Your task to perform on an android device: Open calendar and show me the first week of next month Image 0: 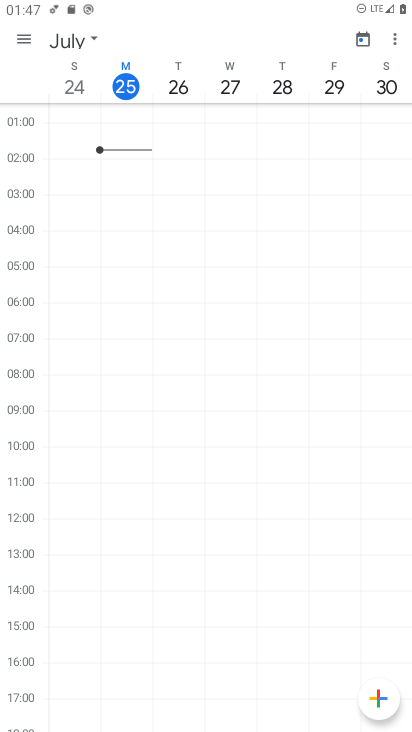
Step 0: press home button
Your task to perform on an android device: Open calendar and show me the first week of next month Image 1: 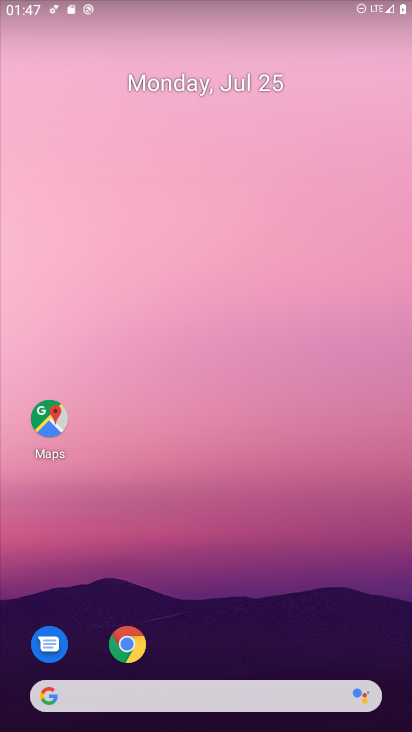
Step 1: drag from (207, 726) to (203, 211)
Your task to perform on an android device: Open calendar and show me the first week of next month Image 2: 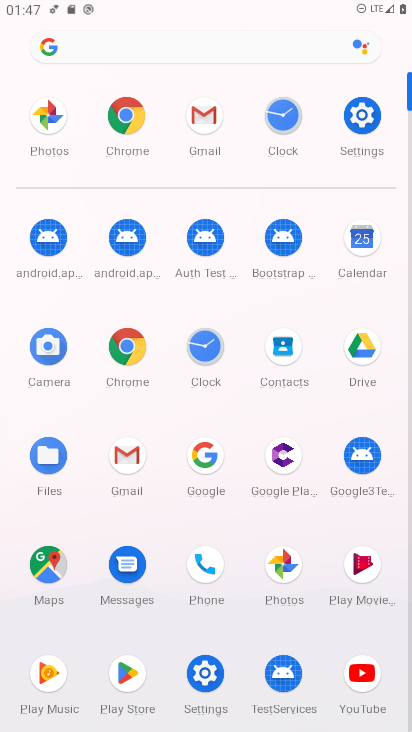
Step 2: click (364, 250)
Your task to perform on an android device: Open calendar and show me the first week of next month Image 3: 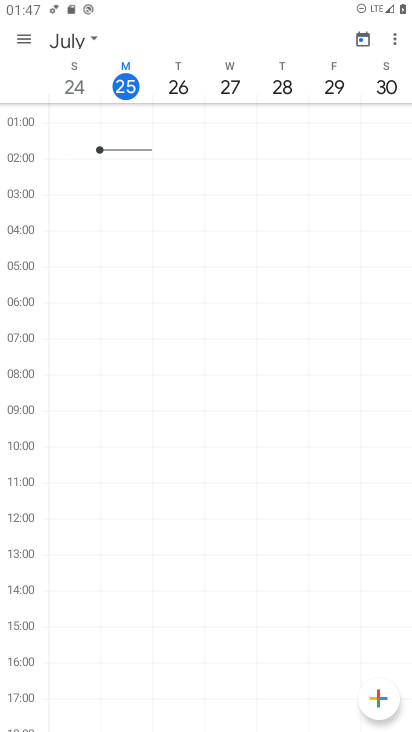
Step 3: click (95, 39)
Your task to perform on an android device: Open calendar and show me the first week of next month Image 4: 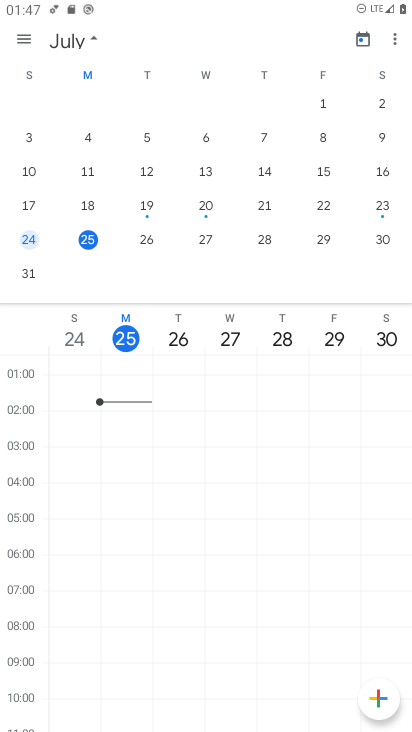
Step 4: task complete